Your task to perform on an android device: find snoozed emails in the gmail app Image 0: 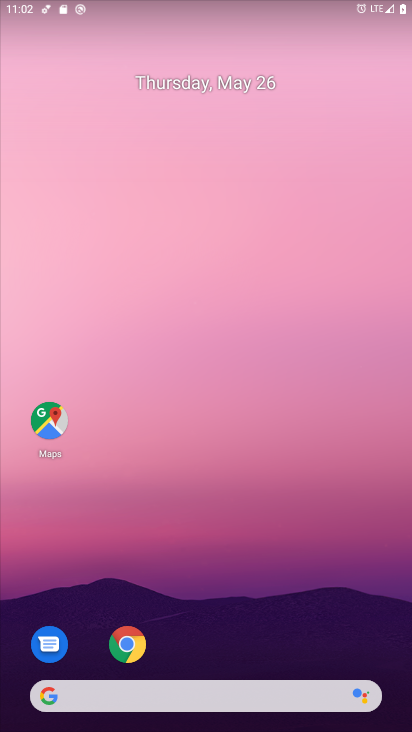
Step 0: drag from (367, 658) to (372, 259)
Your task to perform on an android device: find snoozed emails in the gmail app Image 1: 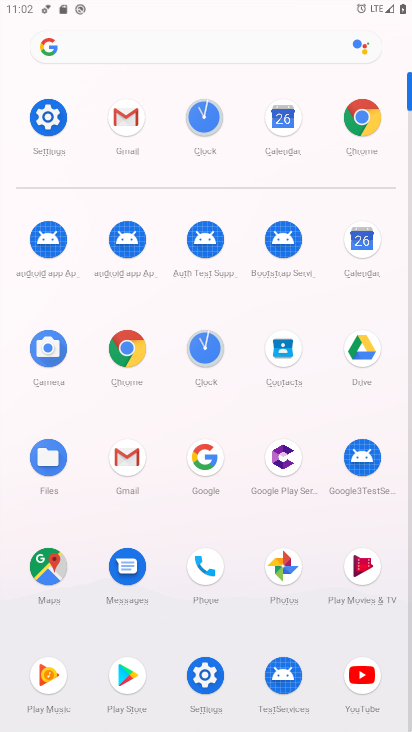
Step 1: click (129, 467)
Your task to perform on an android device: find snoozed emails in the gmail app Image 2: 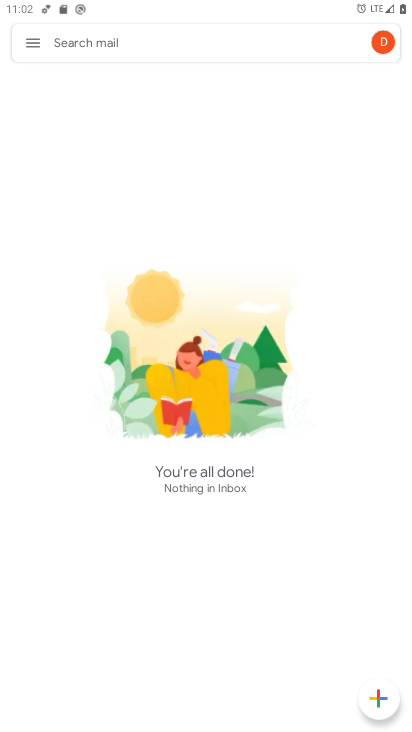
Step 2: click (36, 51)
Your task to perform on an android device: find snoozed emails in the gmail app Image 3: 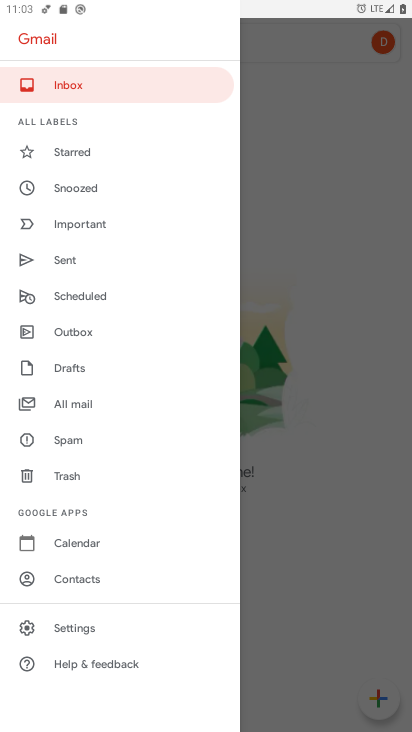
Step 3: click (99, 187)
Your task to perform on an android device: find snoozed emails in the gmail app Image 4: 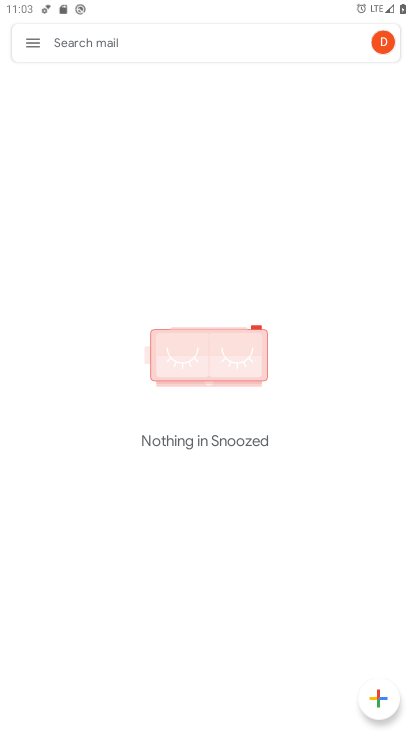
Step 4: task complete